Your task to perform on an android device: install app "Paramount+ | Peak Streaming" Image 0: 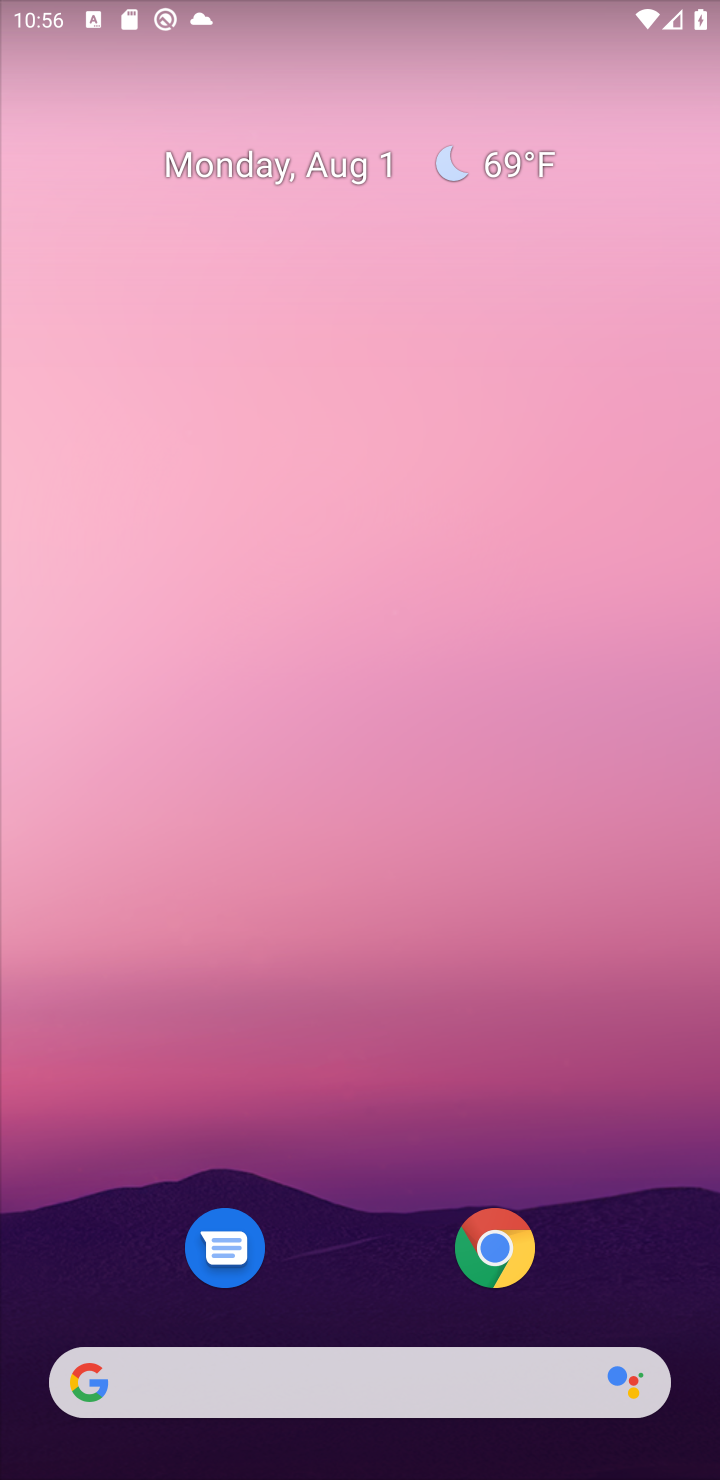
Step 0: drag from (359, 1276) to (406, 310)
Your task to perform on an android device: install app "Paramount+ | Peak Streaming" Image 1: 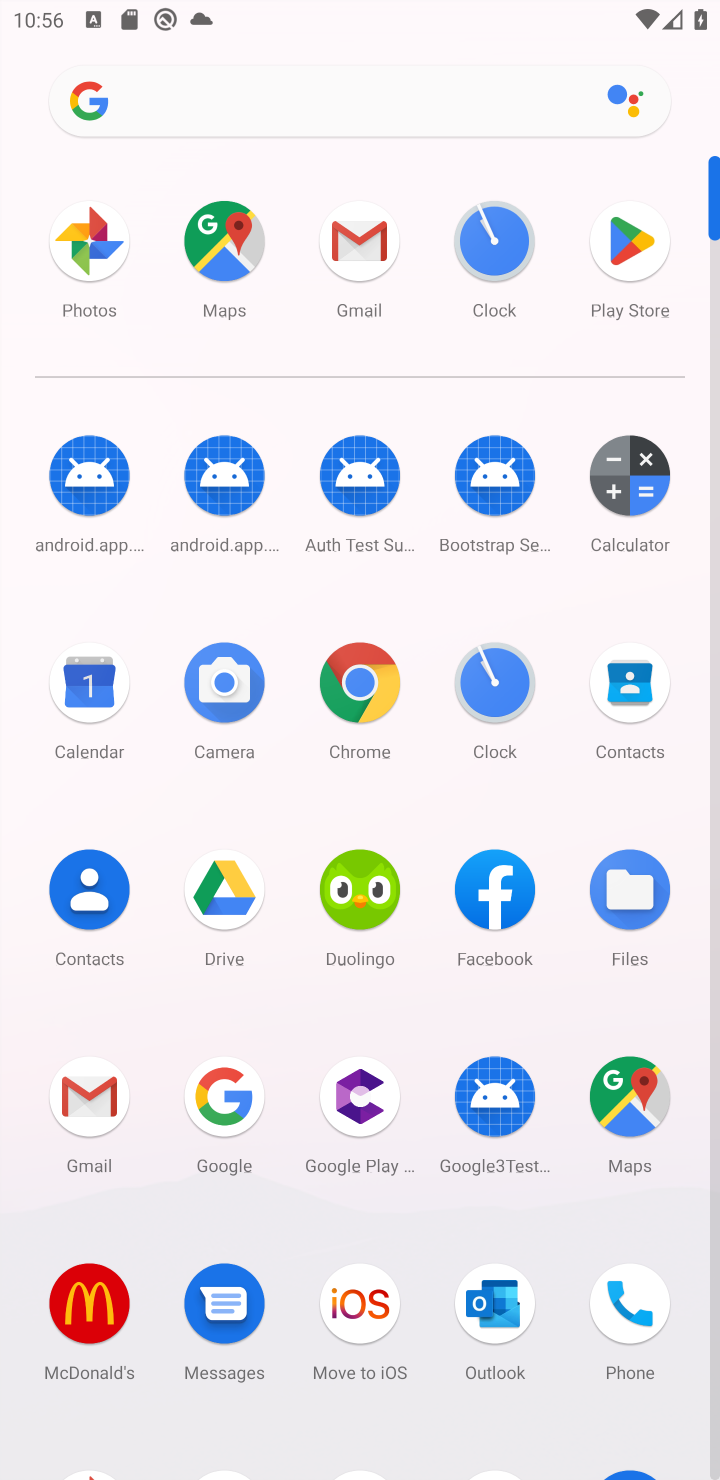
Step 1: drag from (266, 1139) to (346, 543)
Your task to perform on an android device: install app "Paramount+ | Peak Streaming" Image 2: 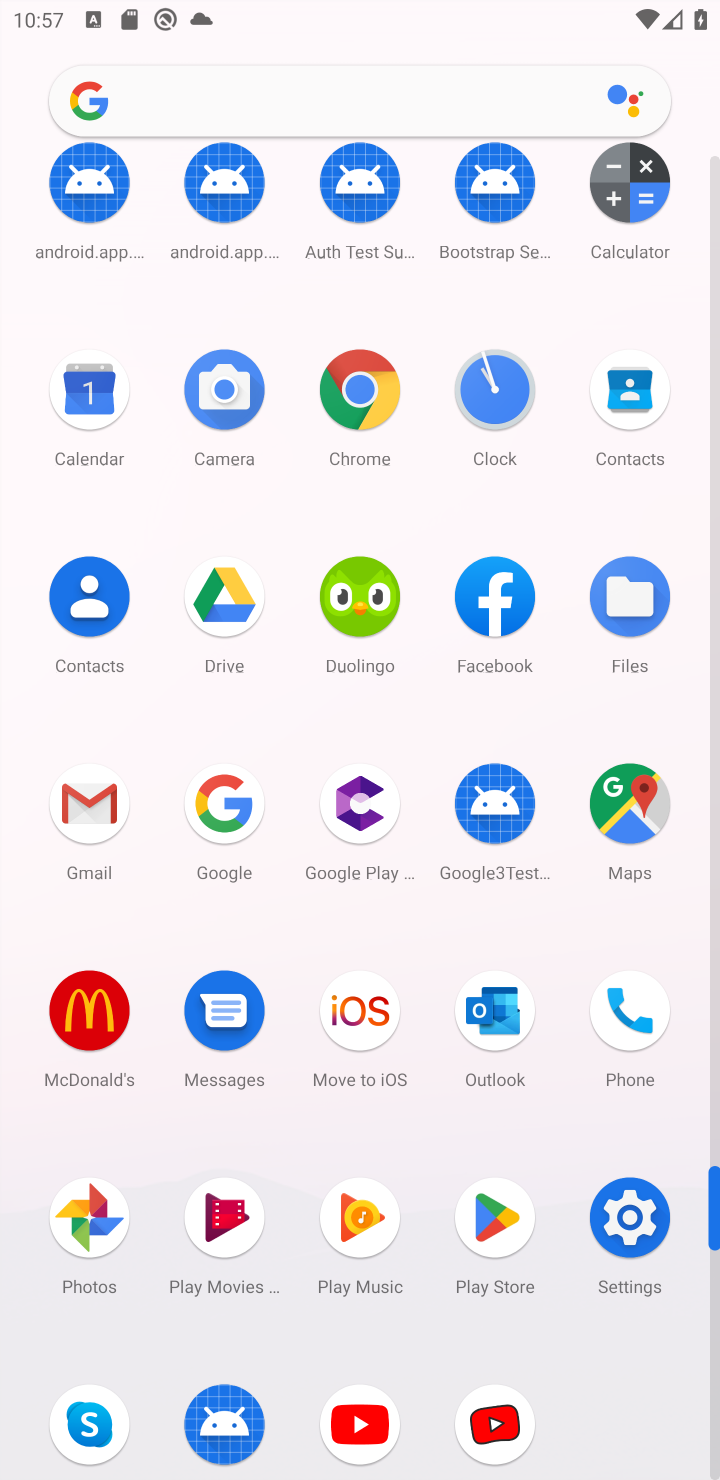
Step 2: click (510, 1211)
Your task to perform on an android device: install app "Paramount+ | Peak Streaming" Image 3: 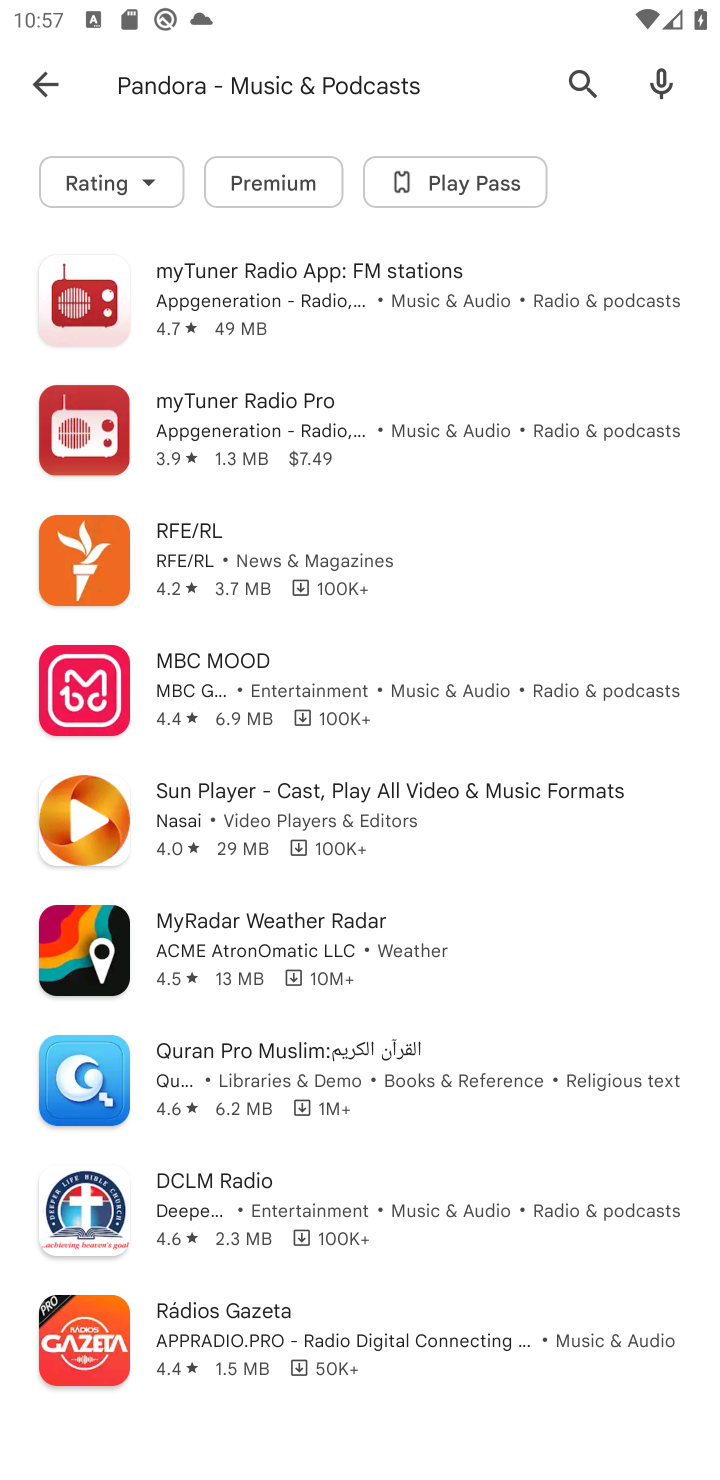
Step 3: click (412, 75)
Your task to perform on an android device: install app "Paramount+ | Peak Streaming" Image 4: 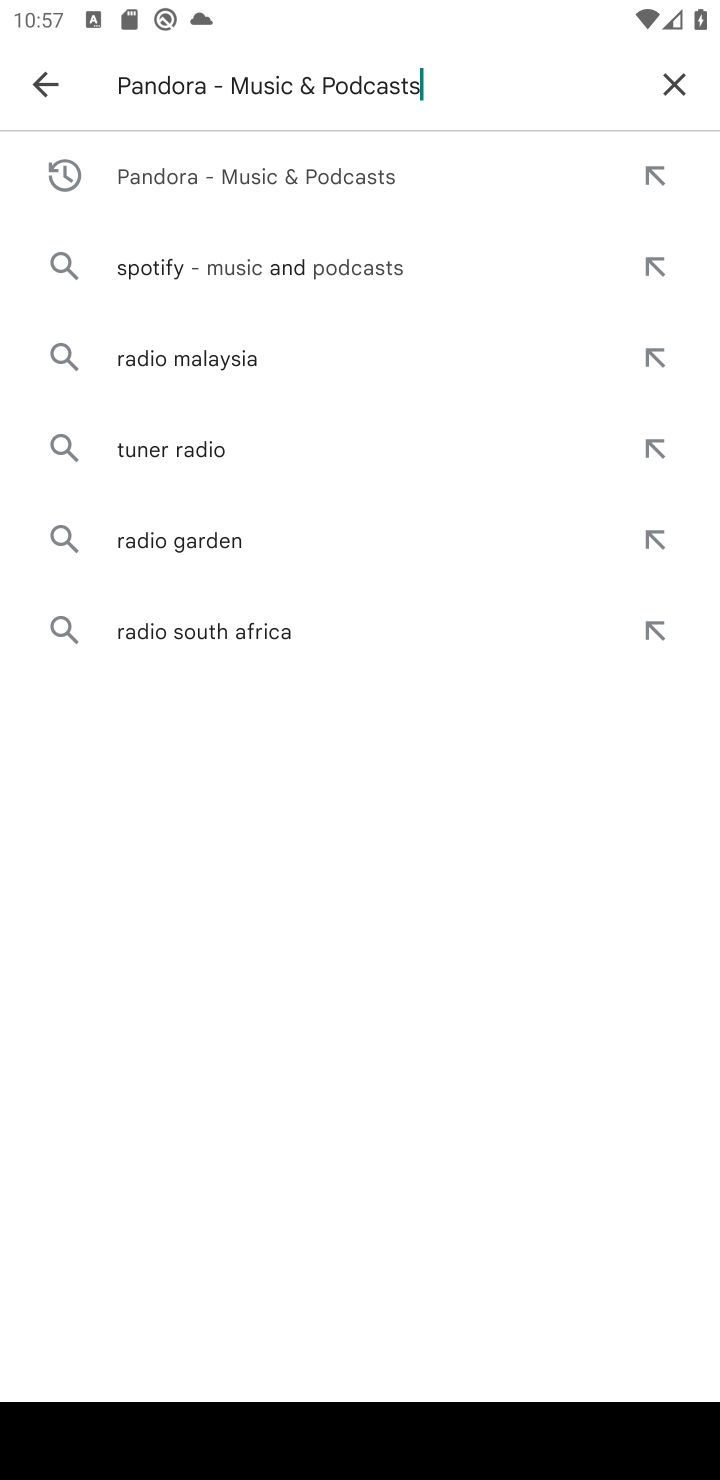
Step 4: press enter
Your task to perform on an android device: install app "Paramount+ | Peak Streaming" Image 5: 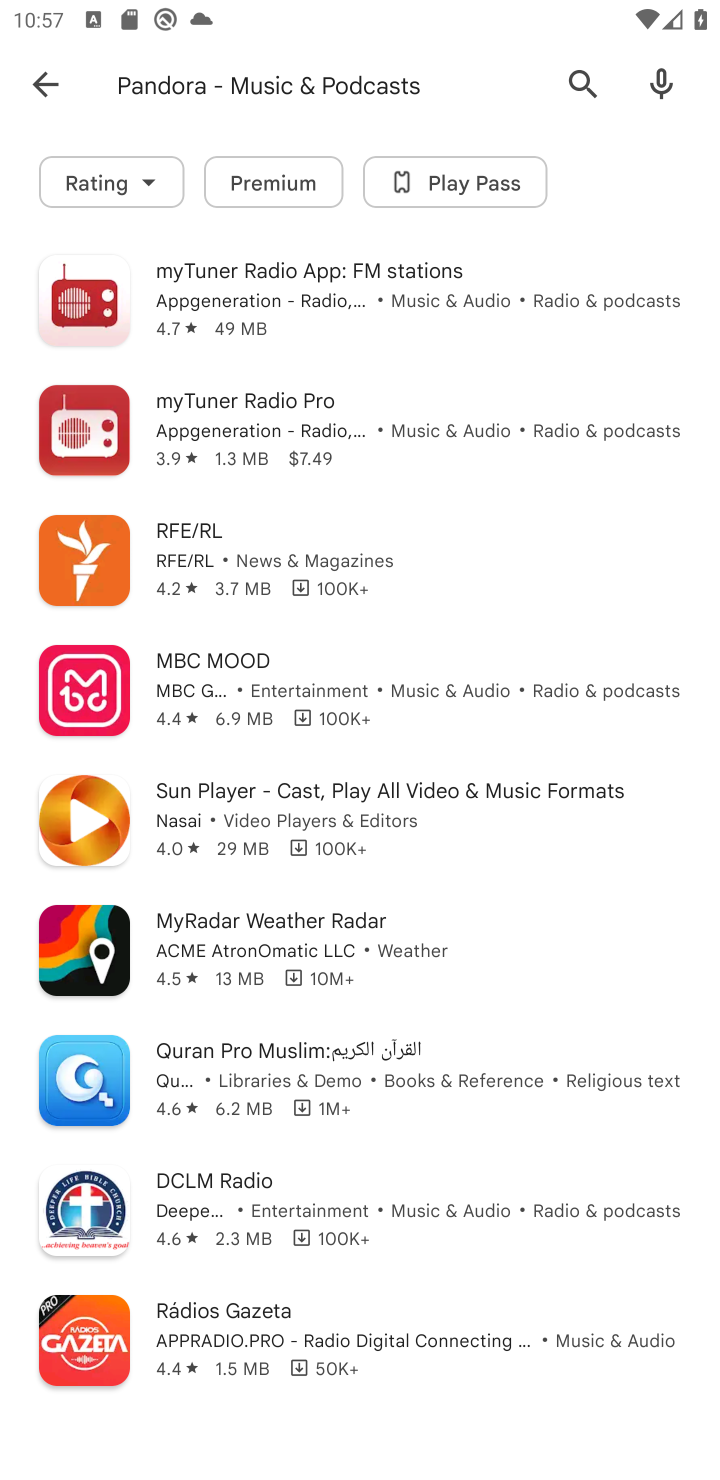
Step 5: task complete